Your task to perform on an android device: open wifi settings Image 0: 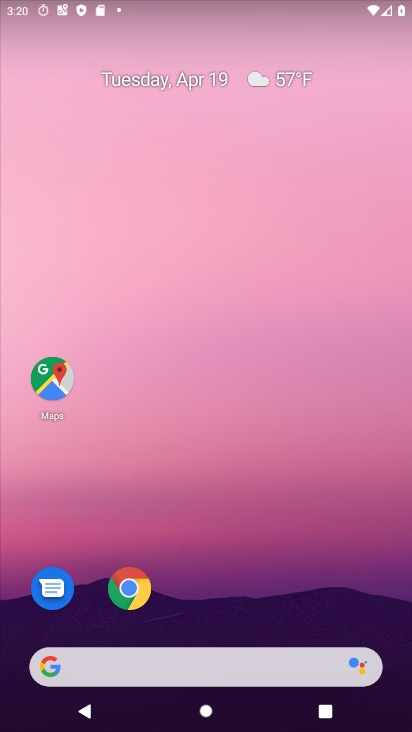
Step 0: drag from (190, 583) to (381, 122)
Your task to perform on an android device: open wifi settings Image 1: 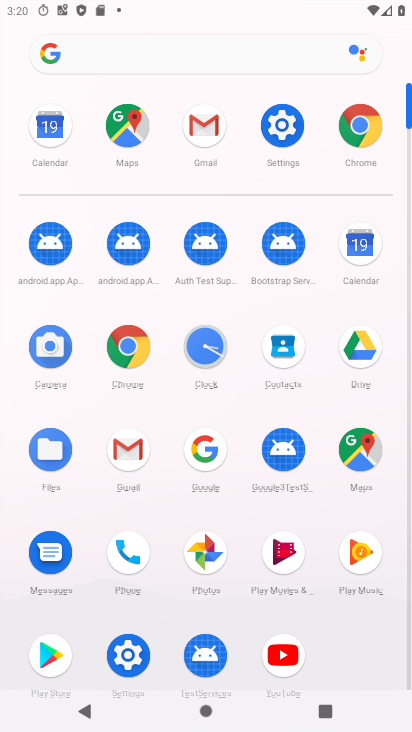
Step 1: click (120, 641)
Your task to perform on an android device: open wifi settings Image 2: 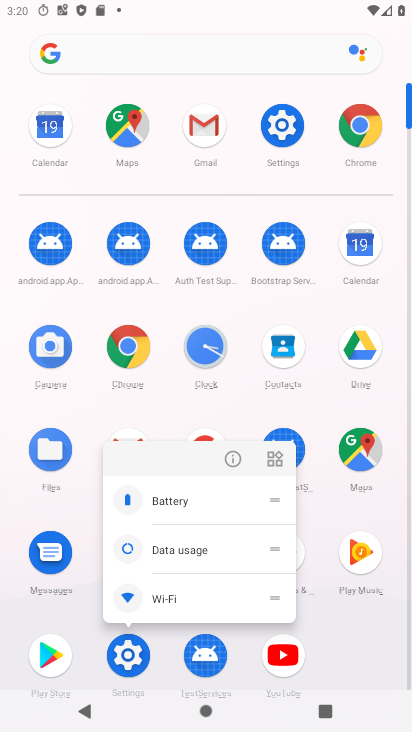
Step 2: click (224, 463)
Your task to perform on an android device: open wifi settings Image 3: 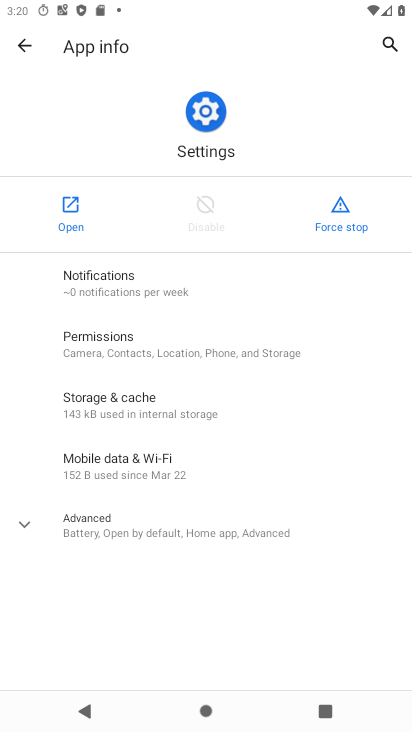
Step 3: click (72, 221)
Your task to perform on an android device: open wifi settings Image 4: 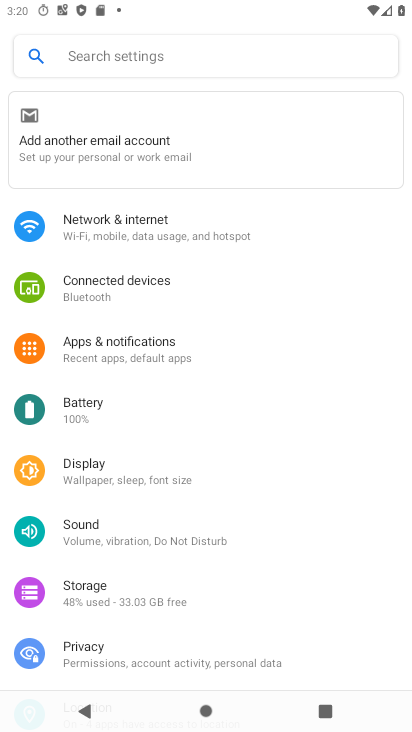
Step 4: click (141, 241)
Your task to perform on an android device: open wifi settings Image 5: 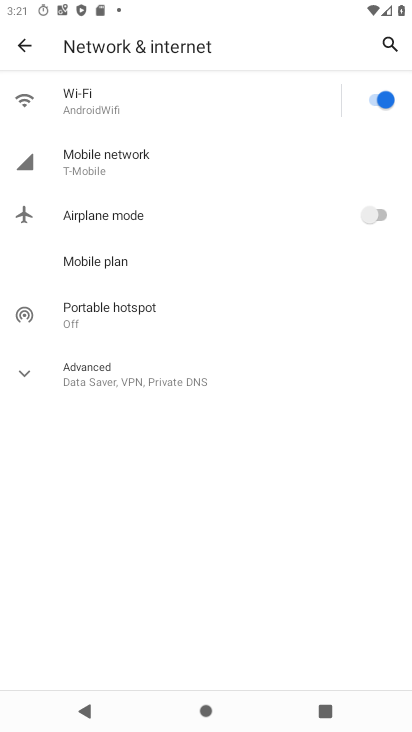
Step 5: click (195, 105)
Your task to perform on an android device: open wifi settings Image 6: 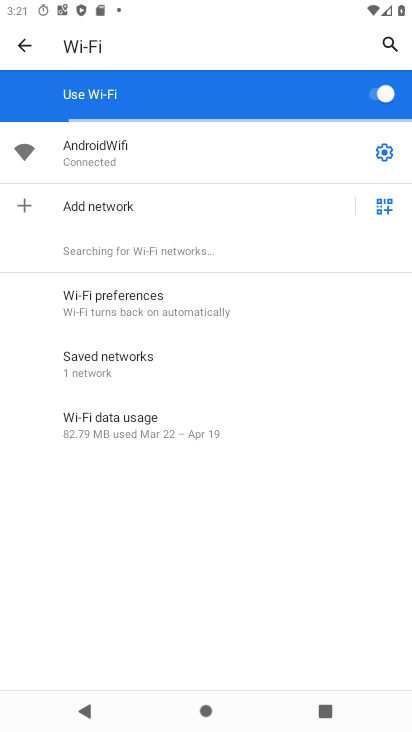
Step 6: click (382, 150)
Your task to perform on an android device: open wifi settings Image 7: 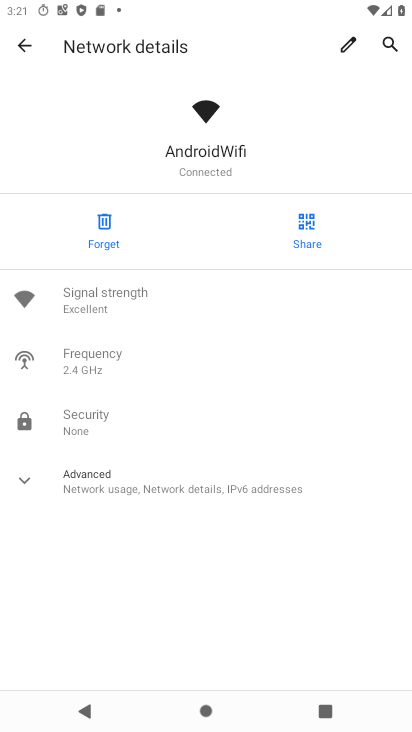
Step 7: task complete